Your task to perform on an android device: see sites visited before in the chrome app Image 0: 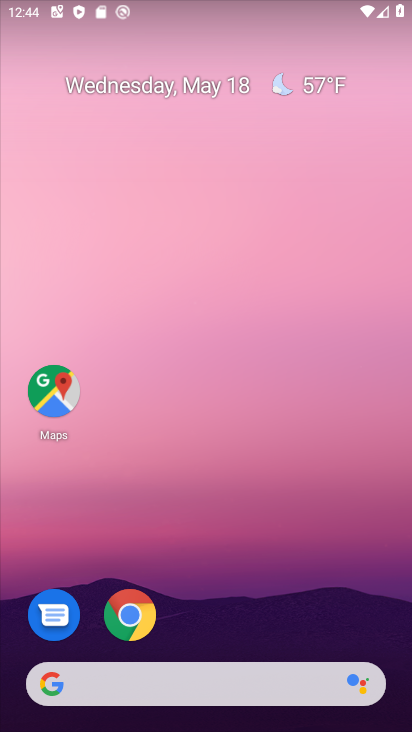
Step 0: drag from (379, 634) to (288, 70)
Your task to perform on an android device: see sites visited before in the chrome app Image 1: 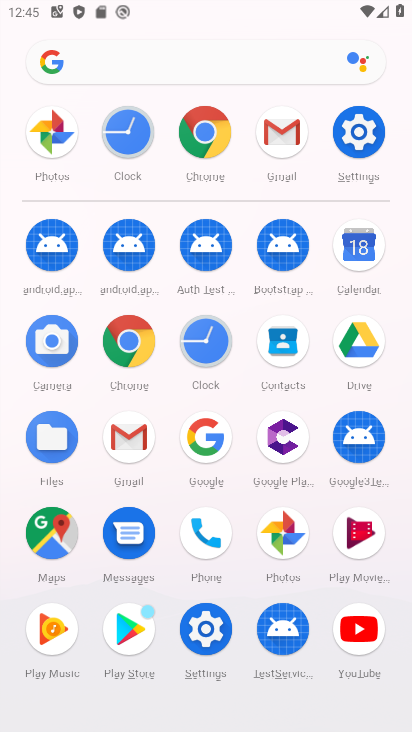
Step 1: click (108, 357)
Your task to perform on an android device: see sites visited before in the chrome app Image 2: 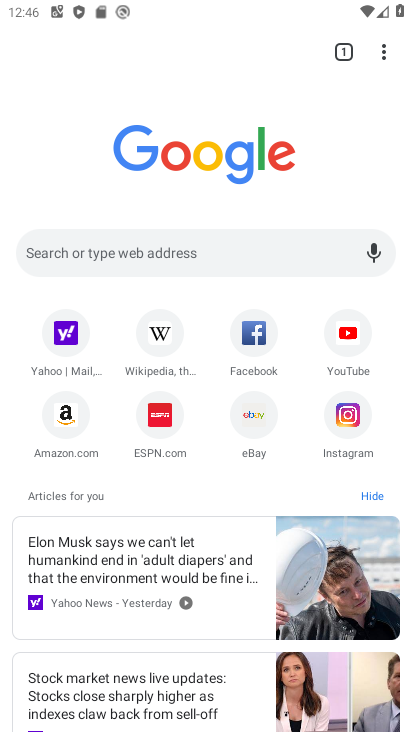
Step 2: click (381, 49)
Your task to perform on an android device: see sites visited before in the chrome app Image 3: 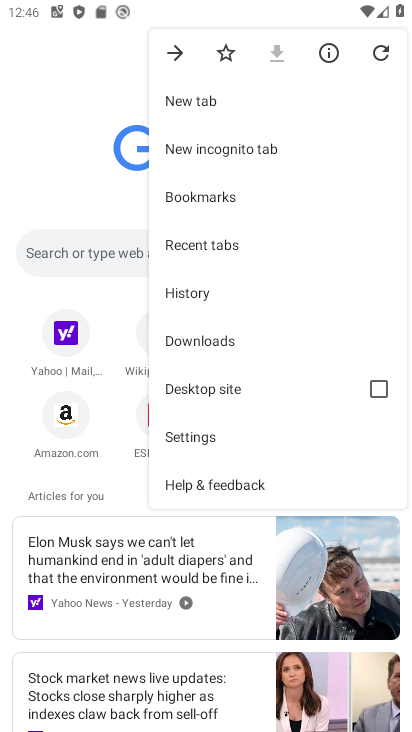
Step 3: click (200, 297)
Your task to perform on an android device: see sites visited before in the chrome app Image 4: 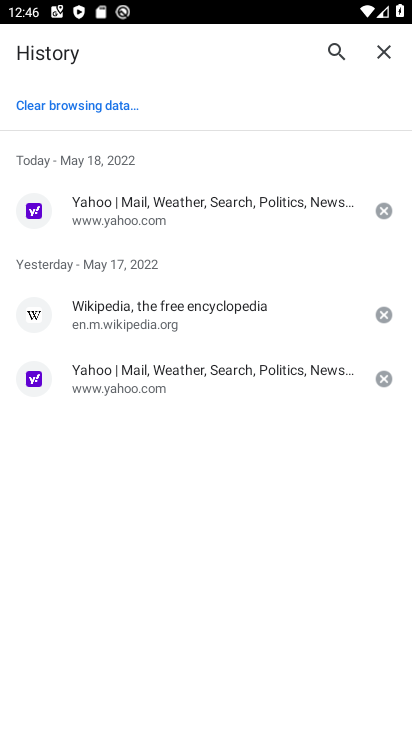
Step 4: click (107, 204)
Your task to perform on an android device: see sites visited before in the chrome app Image 5: 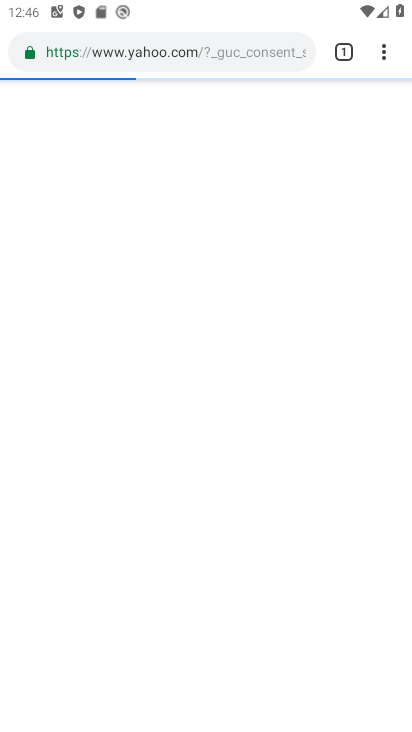
Step 5: task complete